Your task to perform on an android device: Open maps Image 0: 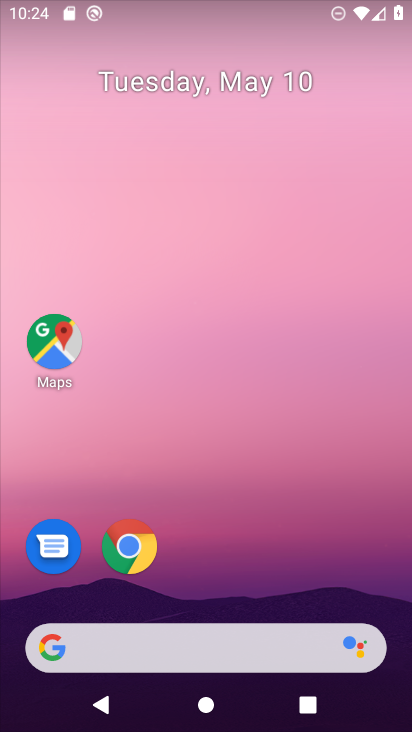
Step 0: click (40, 326)
Your task to perform on an android device: Open maps Image 1: 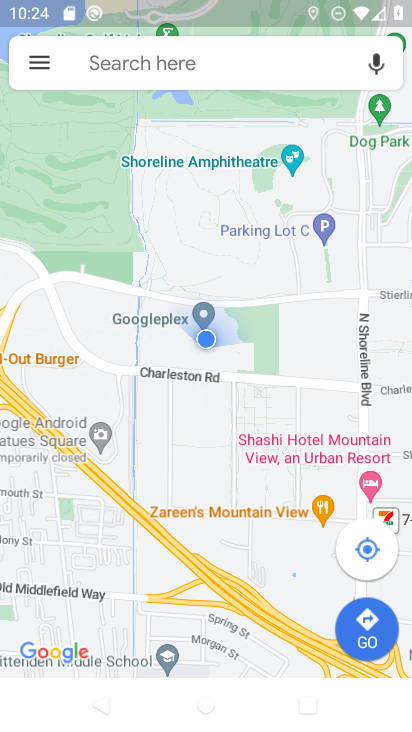
Step 1: task complete